Your task to perform on an android device: Open CNN.com Image 0: 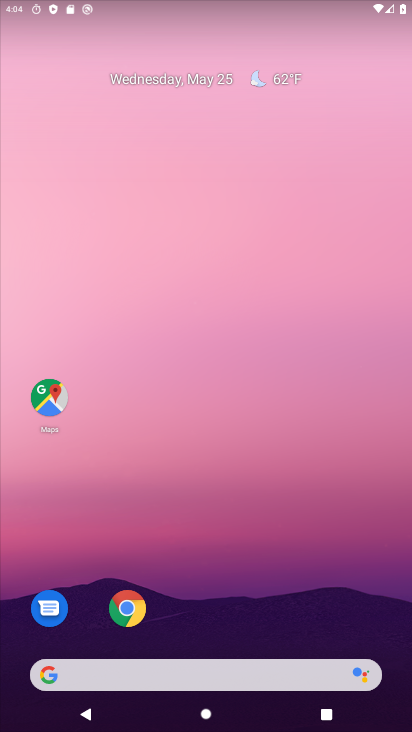
Step 0: click (125, 607)
Your task to perform on an android device: Open CNN.com Image 1: 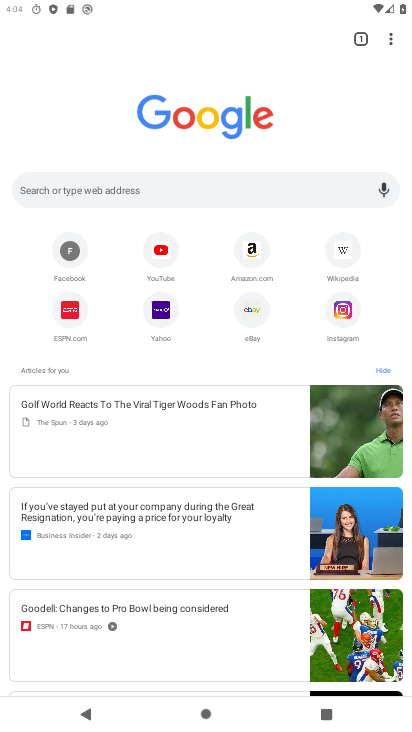
Step 1: click (163, 194)
Your task to perform on an android device: Open CNN.com Image 2: 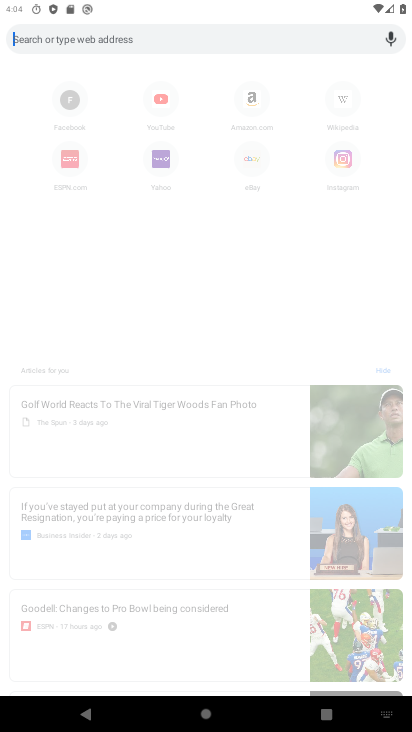
Step 2: type "CNN.com"
Your task to perform on an android device: Open CNN.com Image 3: 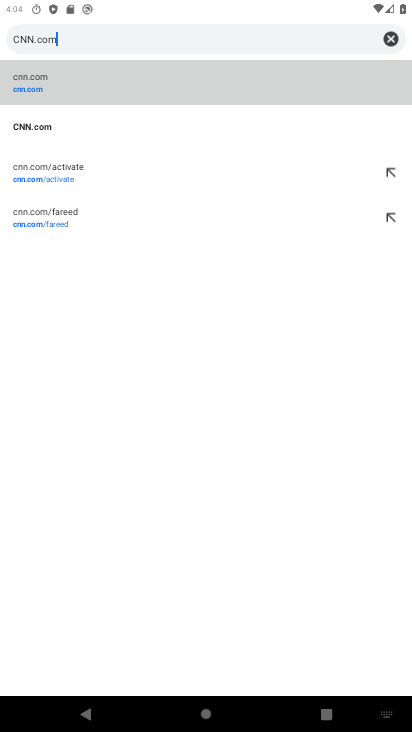
Step 3: click (38, 127)
Your task to perform on an android device: Open CNN.com Image 4: 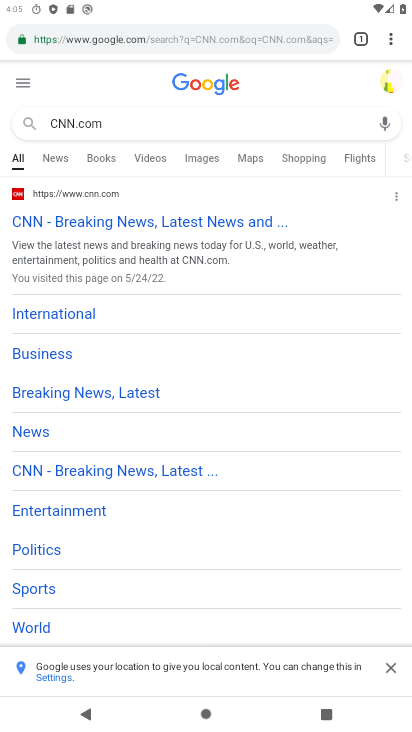
Step 4: click (29, 224)
Your task to perform on an android device: Open CNN.com Image 5: 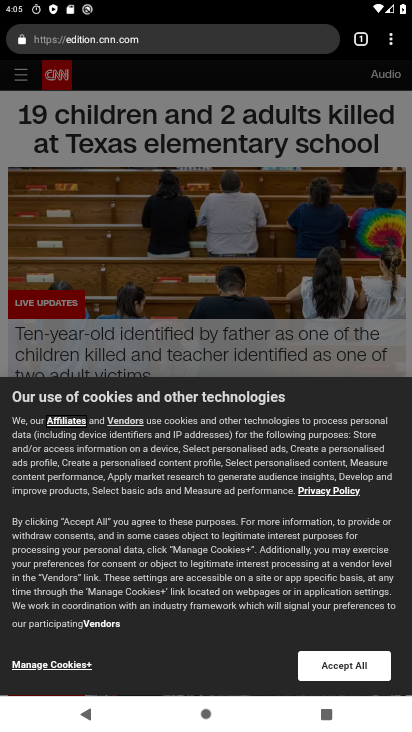
Step 5: task complete